Your task to perform on an android device: open app "Spotify: Music and Podcasts" Image 0: 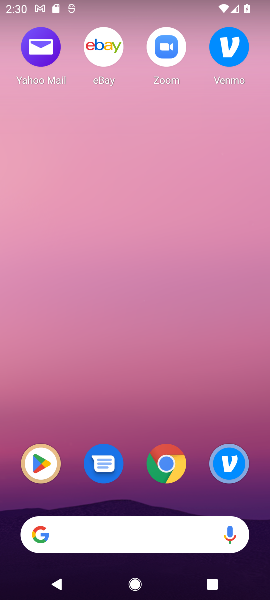
Step 0: press home button
Your task to perform on an android device: open app "Spotify: Music and Podcasts" Image 1: 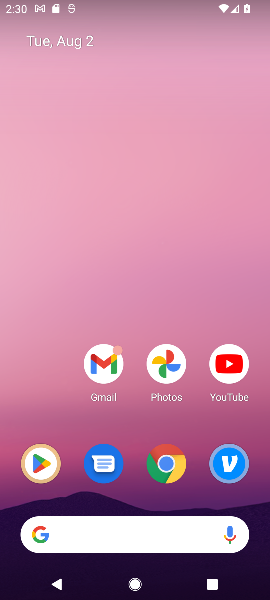
Step 1: click (47, 452)
Your task to perform on an android device: open app "Spotify: Music and Podcasts" Image 2: 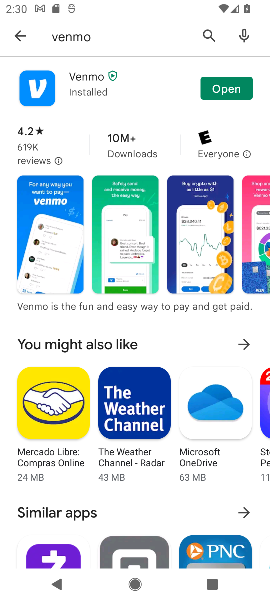
Step 2: click (208, 31)
Your task to perform on an android device: open app "Spotify: Music and Podcasts" Image 3: 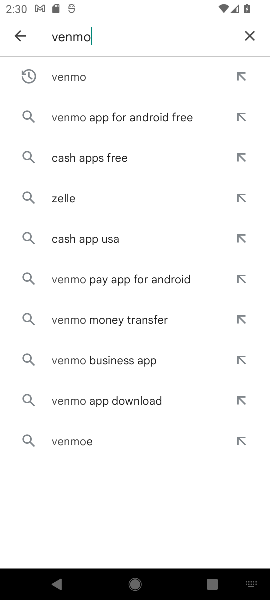
Step 3: click (251, 32)
Your task to perform on an android device: open app "Spotify: Music and Podcasts" Image 4: 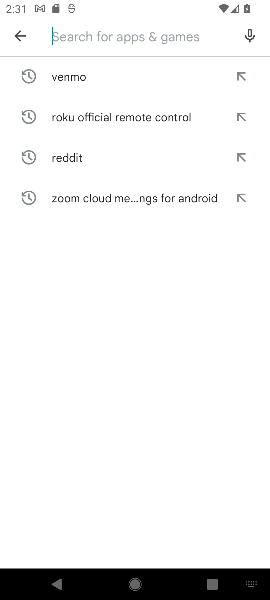
Step 4: type "Spotify: Music and Podcasts"
Your task to perform on an android device: open app "Spotify: Music and Podcasts" Image 5: 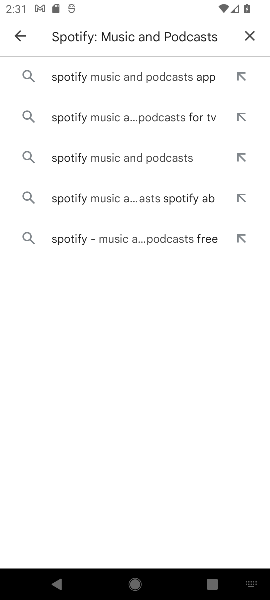
Step 5: click (129, 78)
Your task to perform on an android device: open app "Spotify: Music and Podcasts" Image 6: 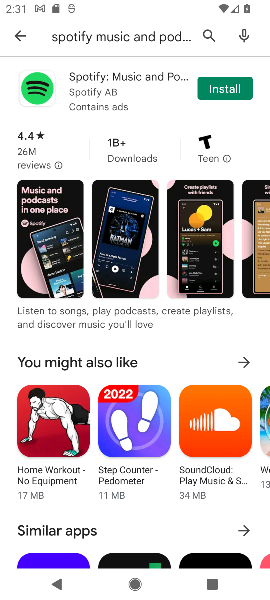
Step 6: task complete